Your task to perform on an android device: Go to calendar. Show me events next week Image 0: 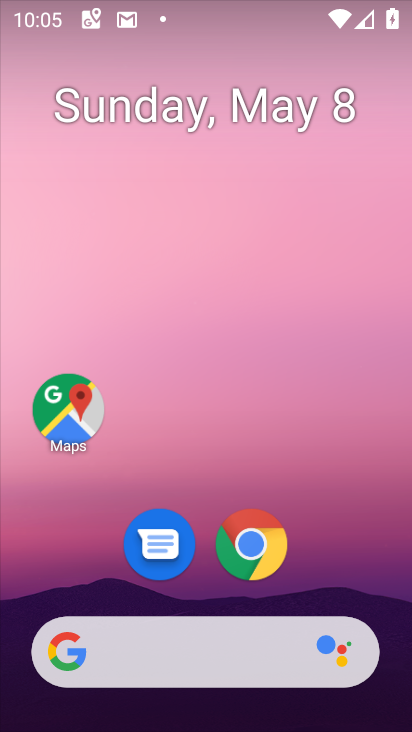
Step 0: drag from (324, 577) to (194, 221)
Your task to perform on an android device: Go to calendar. Show me events next week Image 1: 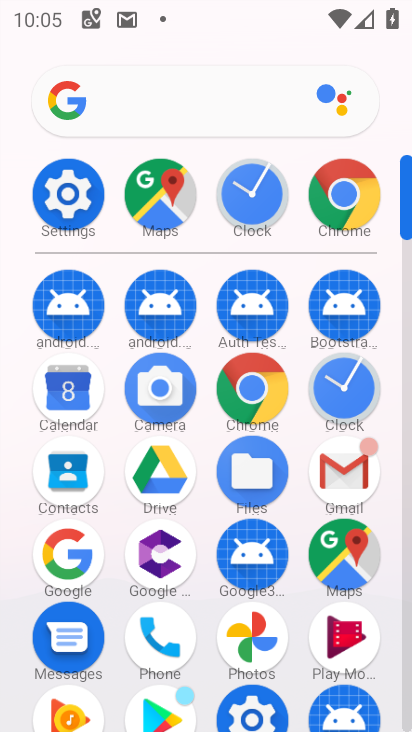
Step 1: click (73, 392)
Your task to perform on an android device: Go to calendar. Show me events next week Image 2: 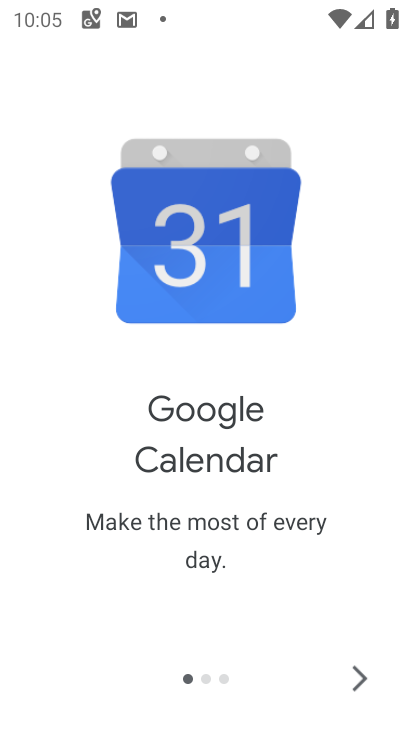
Step 2: click (354, 671)
Your task to perform on an android device: Go to calendar. Show me events next week Image 3: 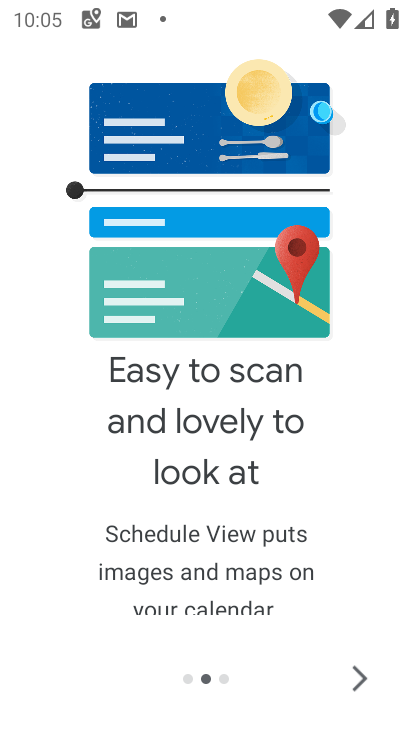
Step 3: click (352, 678)
Your task to perform on an android device: Go to calendar. Show me events next week Image 4: 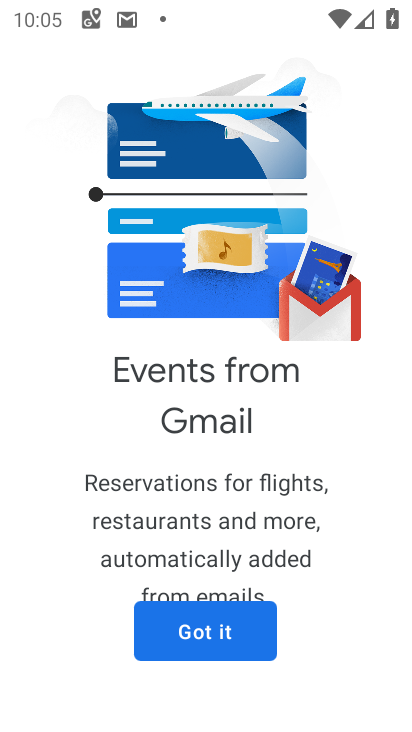
Step 4: click (236, 631)
Your task to perform on an android device: Go to calendar. Show me events next week Image 5: 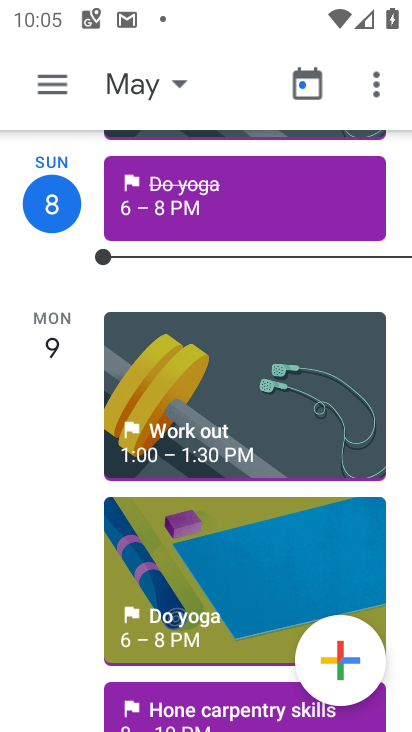
Step 5: click (65, 84)
Your task to perform on an android device: Go to calendar. Show me events next week Image 6: 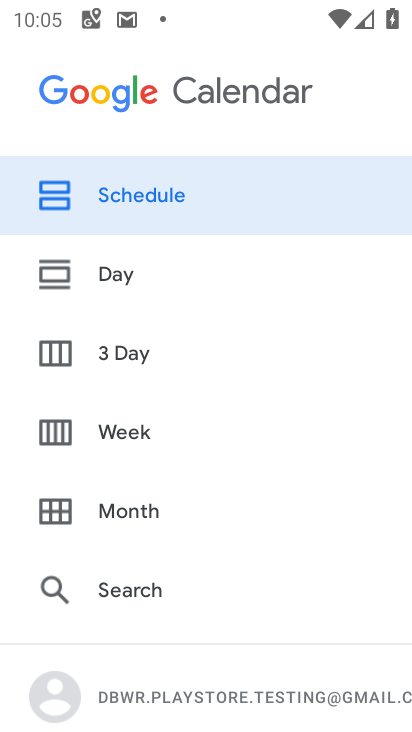
Step 6: click (246, 284)
Your task to perform on an android device: Go to calendar. Show me events next week Image 7: 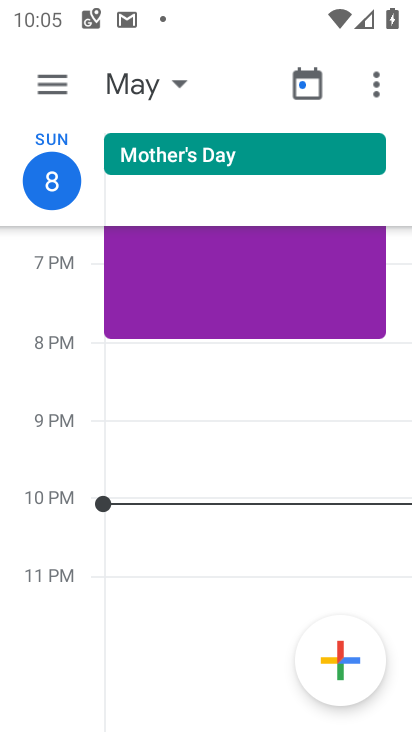
Step 7: click (59, 97)
Your task to perform on an android device: Go to calendar. Show me events next week Image 8: 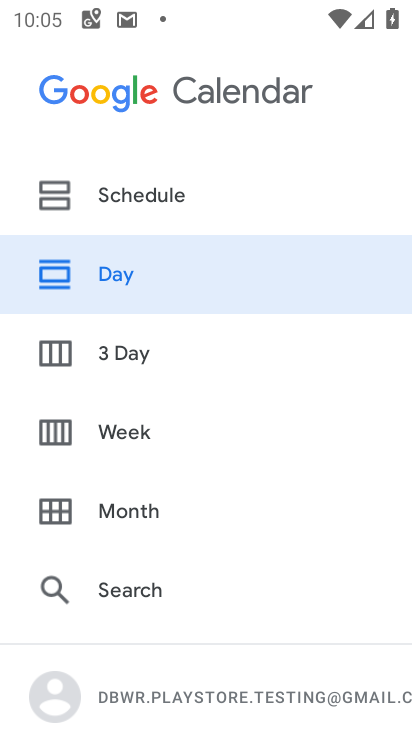
Step 8: click (57, 427)
Your task to perform on an android device: Go to calendar. Show me events next week Image 9: 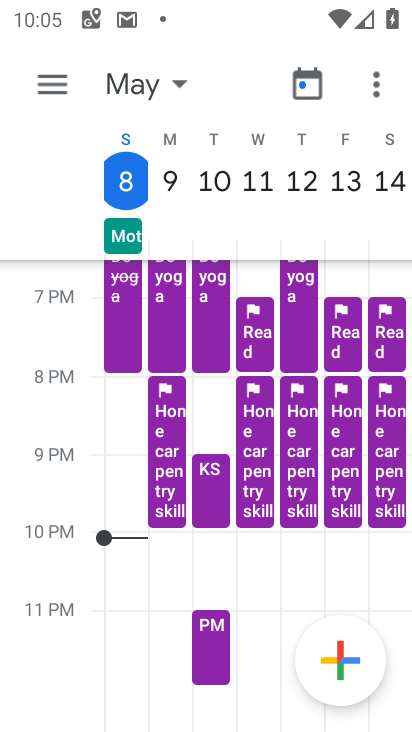
Step 9: task complete